Your task to perform on an android device: Go to sound settings Image 0: 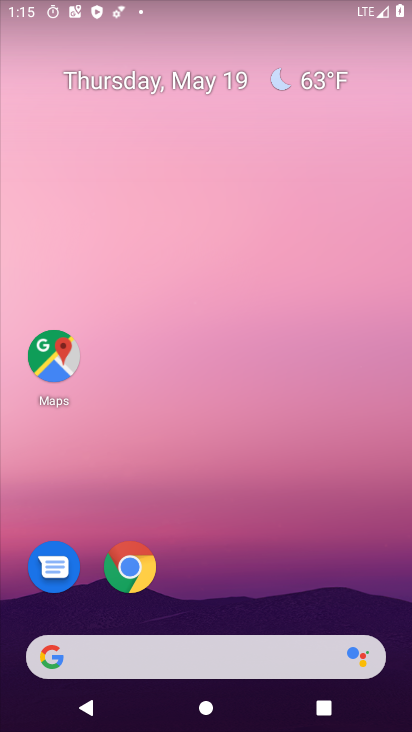
Step 0: press home button
Your task to perform on an android device: Go to sound settings Image 1: 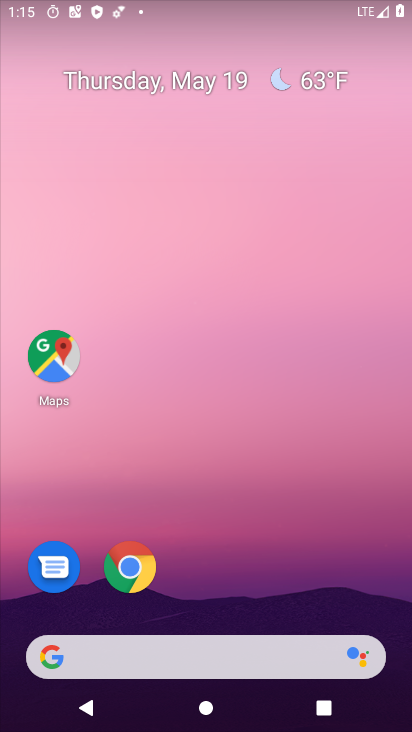
Step 1: drag from (167, 657) to (328, 169)
Your task to perform on an android device: Go to sound settings Image 2: 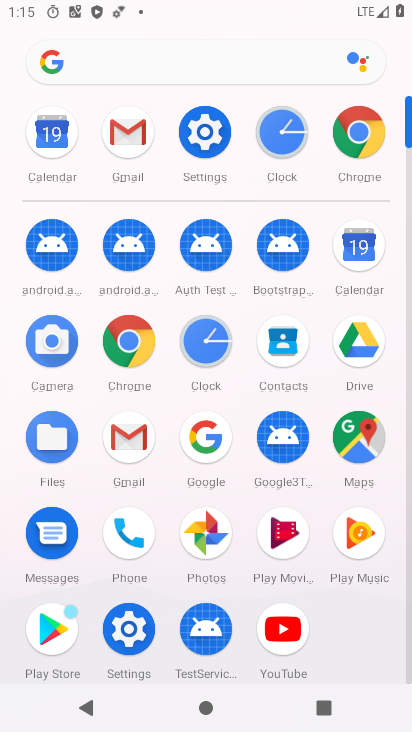
Step 2: click (216, 139)
Your task to perform on an android device: Go to sound settings Image 3: 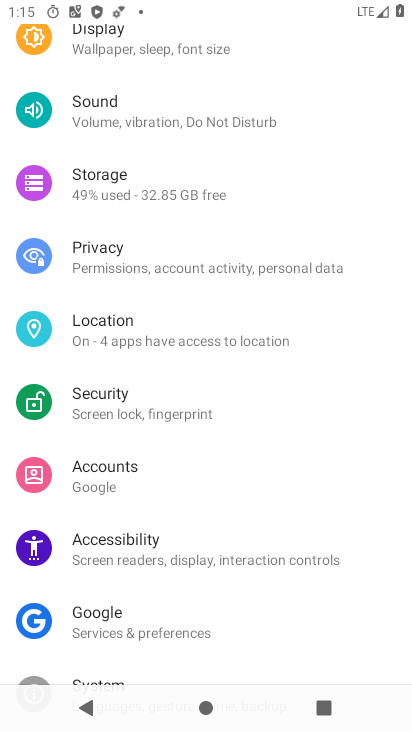
Step 3: click (142, 122)
Your task to perform on an android device: Go to sound settings Image 4: 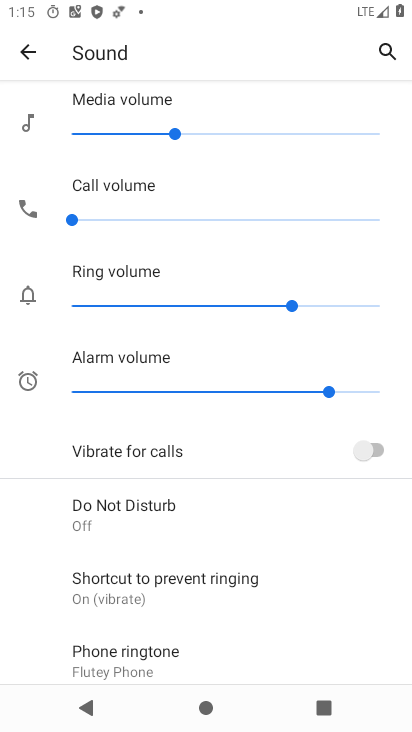
Step 4: task complete